Your task to perform on an android device: Go to Wikipedia Image 0: 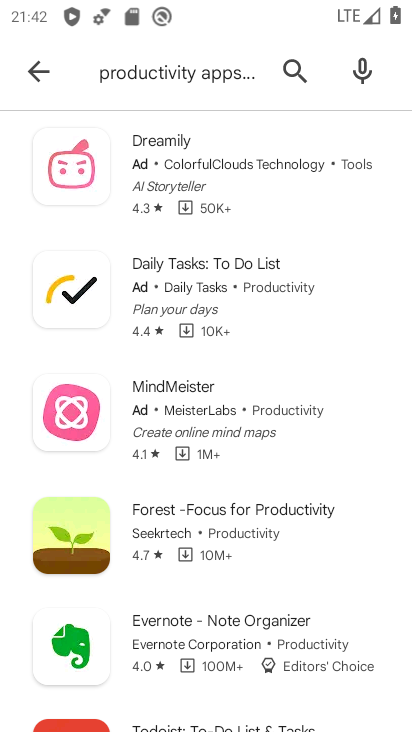
Step 0: press home button
Your task to perform on an android device: Go to Wikipedia Image 1: 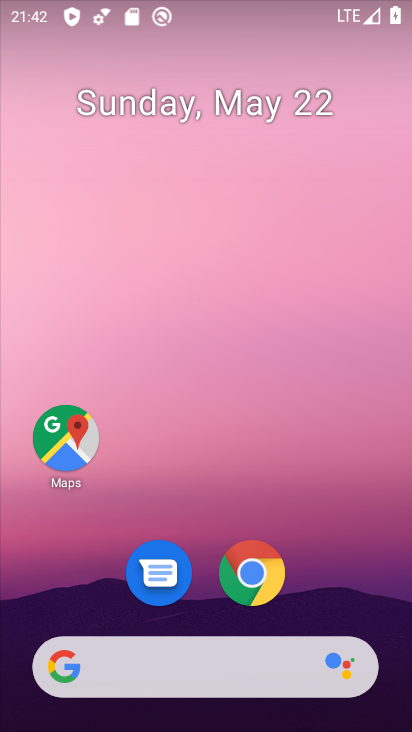
Step 1: click (263, 579)
Your task to perform on an android device: Go to Wikipedia Image 2: 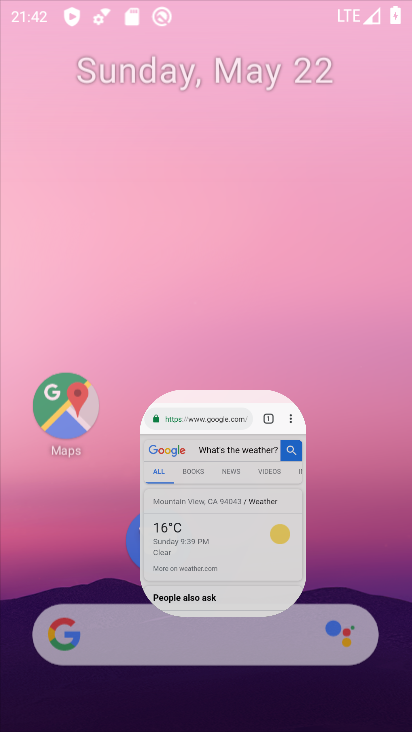
Step 2: click (264, 590)
Your task to perform on an android device: Go to Wikipedia Image 3: 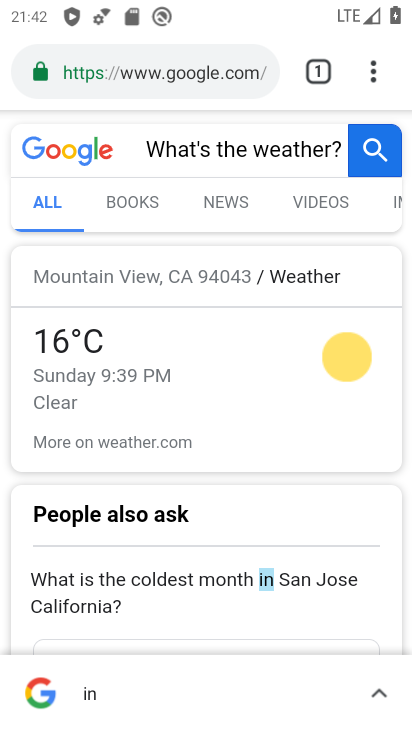
Step 3: click (172, 79)
Your task to perform on an android device: Go to Wikipedia Image 4: 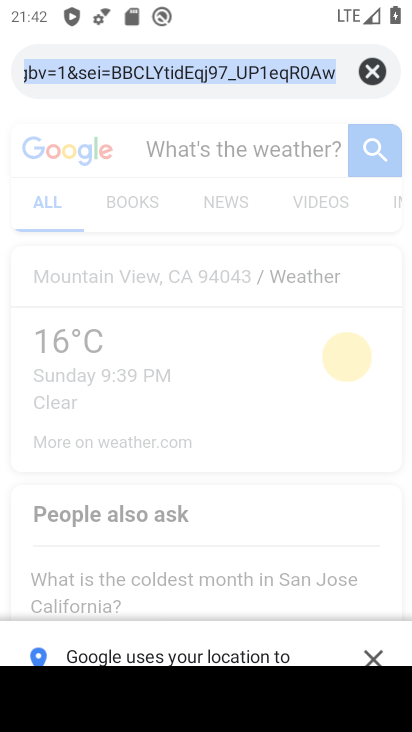
Step 4: click (365, 67)
Your task to perform on an android device: Go to Wikipedia Image 5: 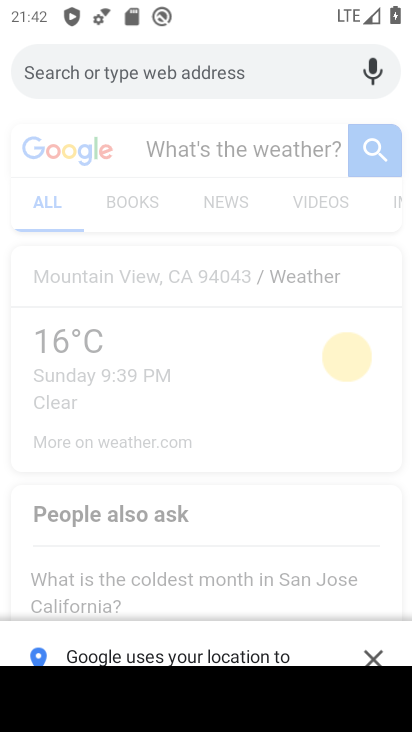
Step 5: type " Wikipedia"
Your task to perform on an android device: Go to Wikipedia Image 6: 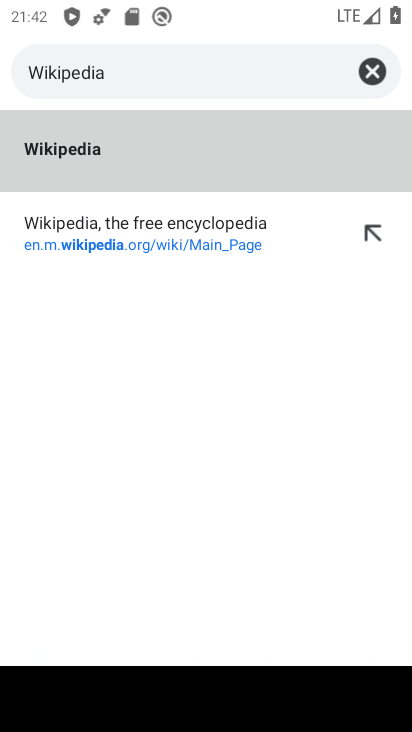
Step 6: click (167, 228)
Your task to perform on an android device: Go to Wikipedia Image 7: 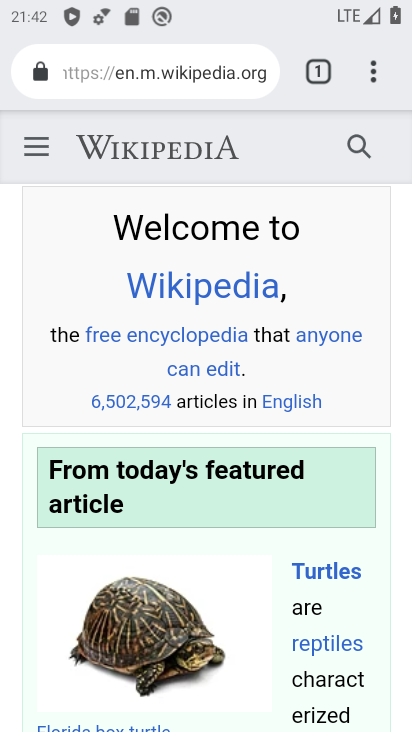
Step 7: task complete